Your task to perform on an android device: Open eBay Image 0: 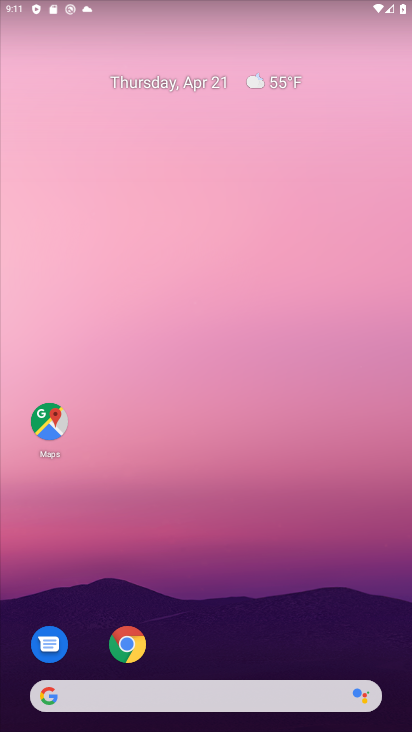
Step 0: drag from (193, 661) to (243, 112)
Your task to perform on an android device: Open eBay Image 1: 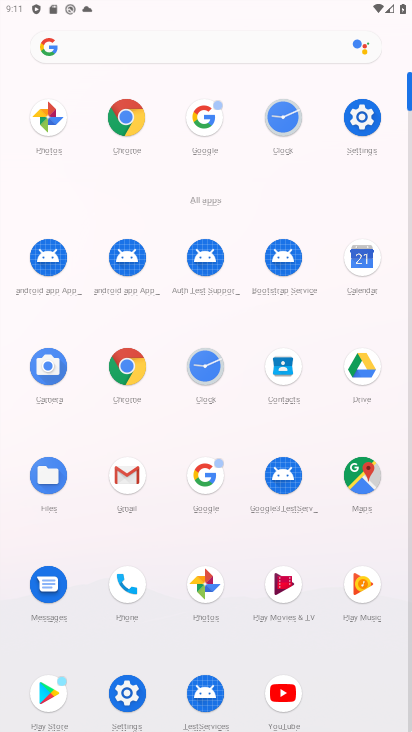
Step 1: click (127, 363)
Your task to perform on an android device: Open eBay Image 2: 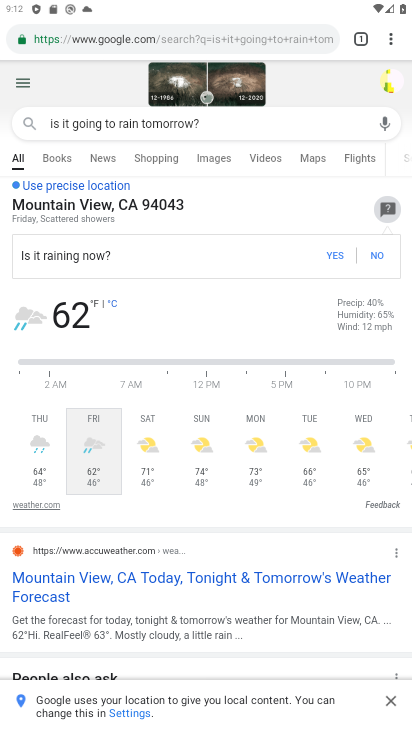
Step 2: click (130, 47)
Your task to perform on an android device: Open eBay Image 3: 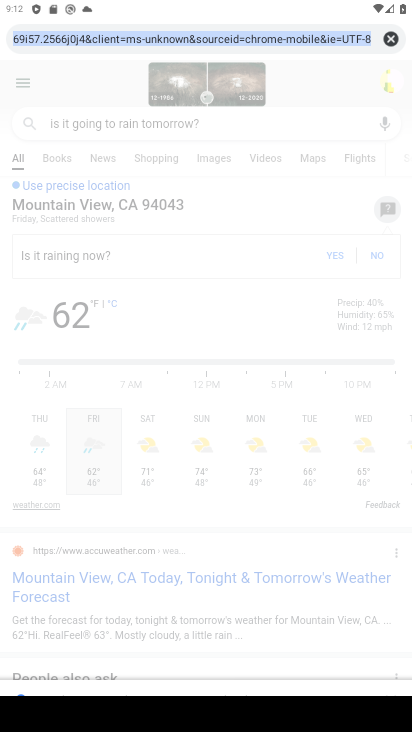
Step 3: type "eBay"
Your task to perform on an android device: Open eBay Image 4: 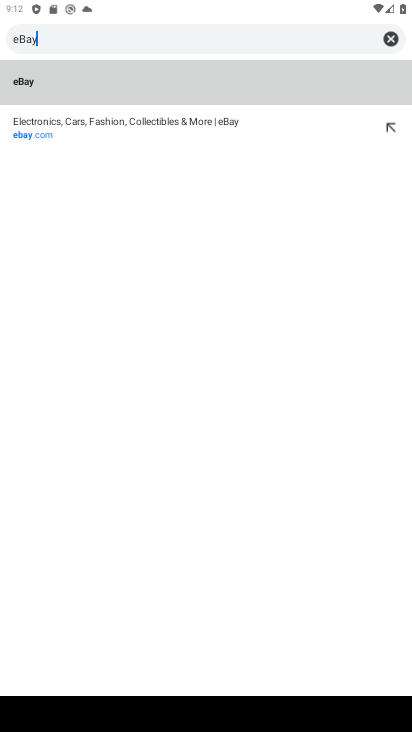
Step 4: click (170, 81)
Your task to perform on an android device: Open eBay Image 5: 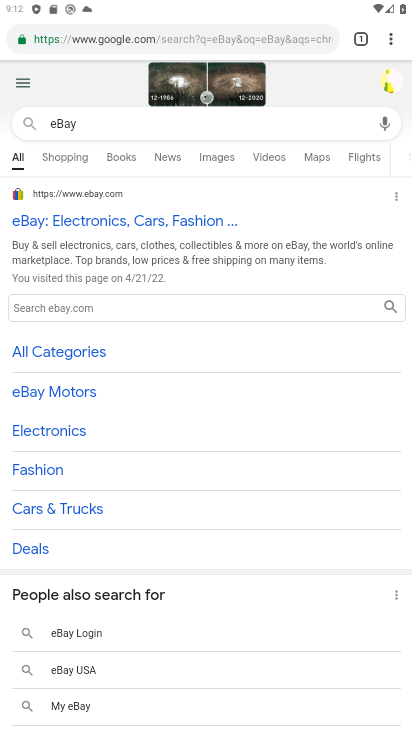
Step 5: task complete